Your task to perform on an android device: Open Amazon Image 0: 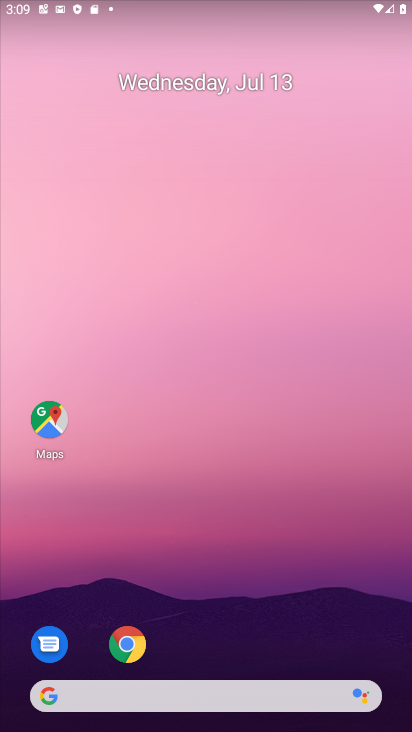
Step 0: click (72, 702)
Your task to perform on an android device: Open Amazon Image 1: 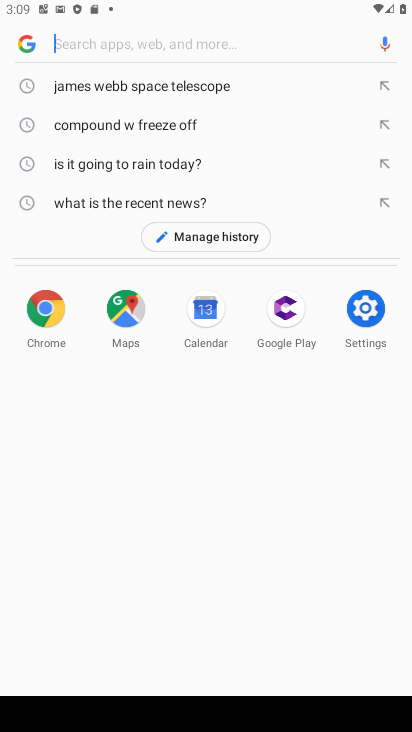
Step 1: type "Amazon"
Your task to perform on an android device: Open Amazon Image 2: 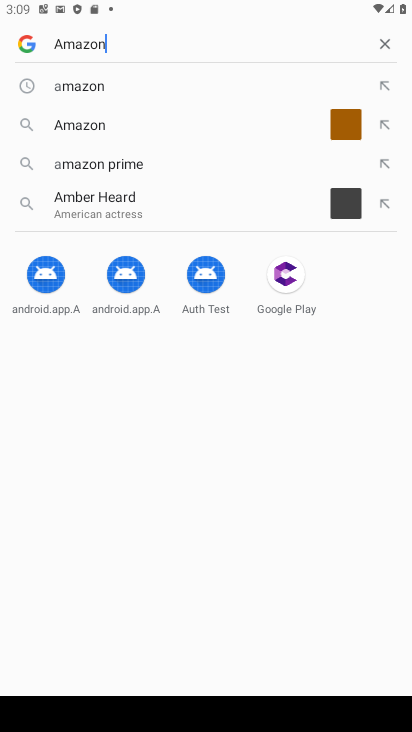
Step 2: type ""
Your task to perform on an android device: Open Amazon Image 3: 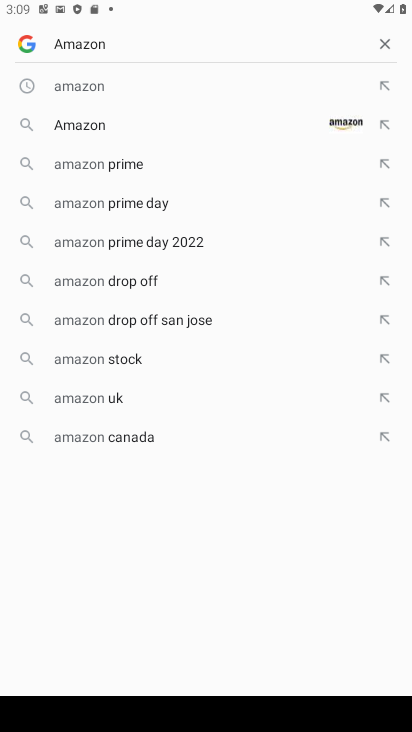
Step 3: click (58, 71)
Your task to perform on an android device: Open Amazon Image 4: 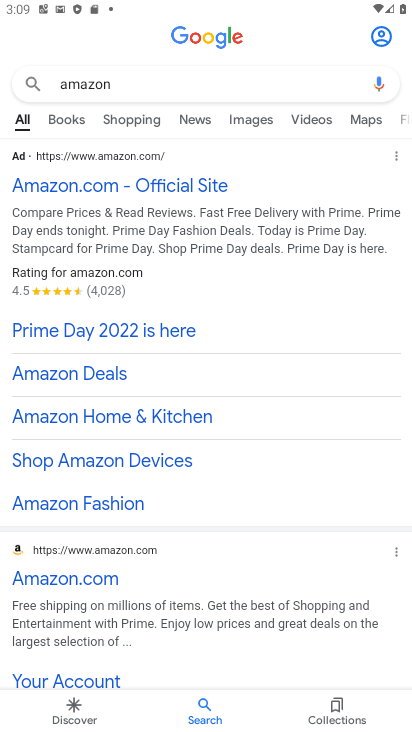
Step 4: task complete